Your task to perform on an android device: Open Maps and search for coffee Image 0: 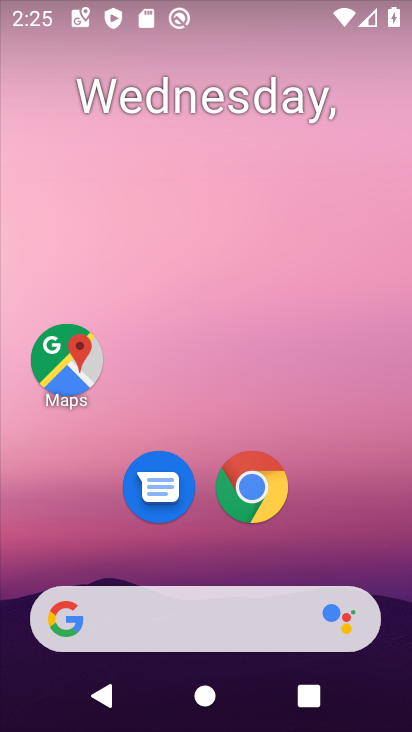
Step 0: click (63, 349)
Your task to perform on an android device: Open Maps and search for coffee Image 1: 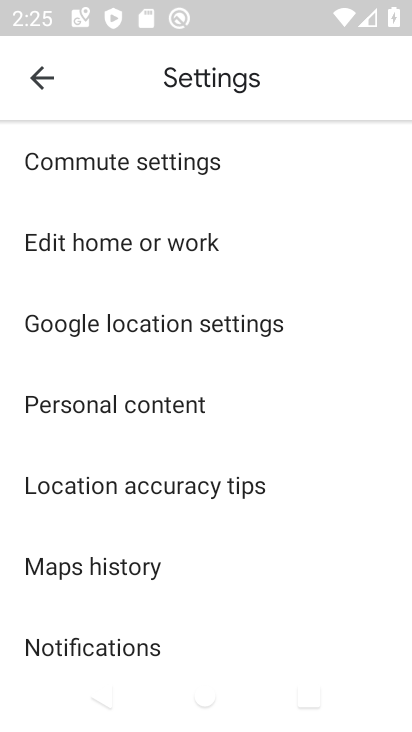
Step 1: click (43, 76)
Your task to perform on an android device: Open Maps and search for coffee Image 2: 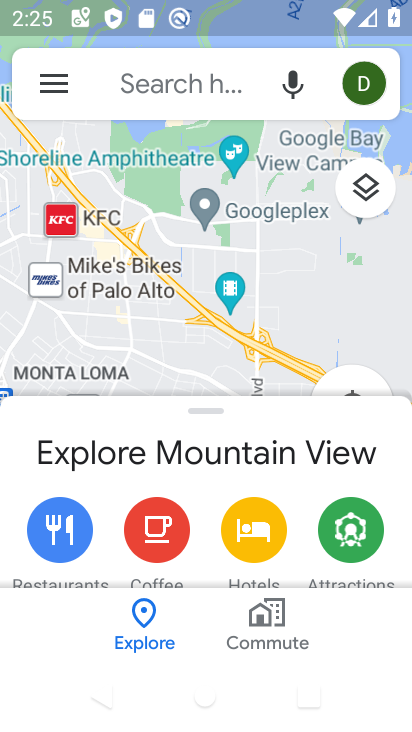
Step 2: click (115, 76)
Your task to perform on an android device: Open Maps and search for coffee Image 3: 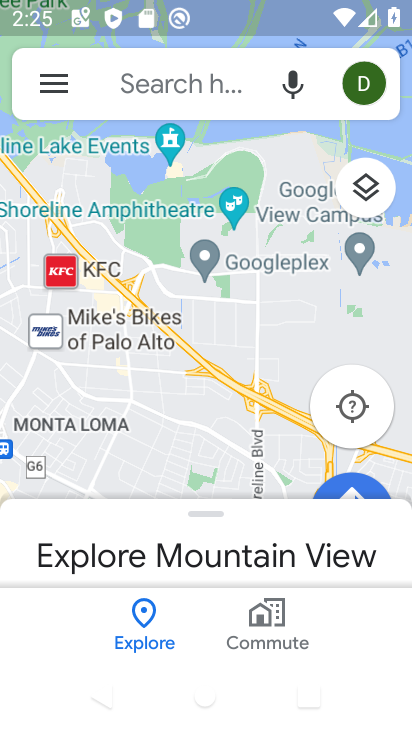
Step 3: click (150, 80)
Your task to perform on an android device: Open Maps and search for coffee Image 4: 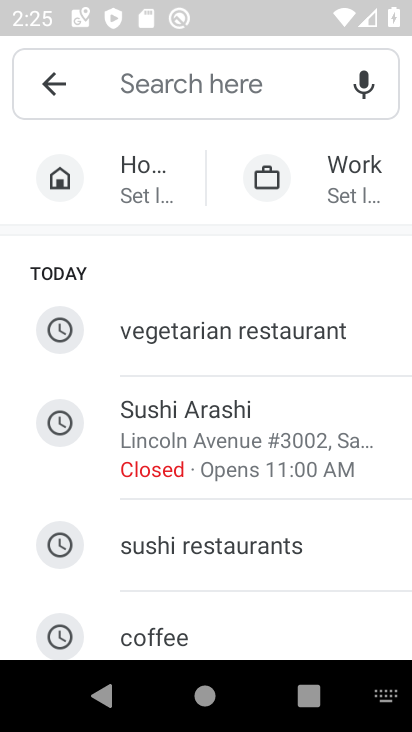
Step 4: click (154, 632)
Your task to perform on an android device: Open Maps and search for coffee Image 5: 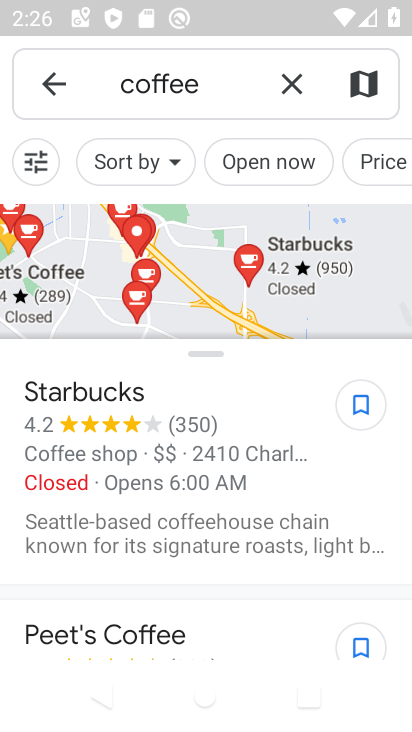
Step 5: task complete